Your task to perform on an android device: turn pop-ups on in chrome Image 0: 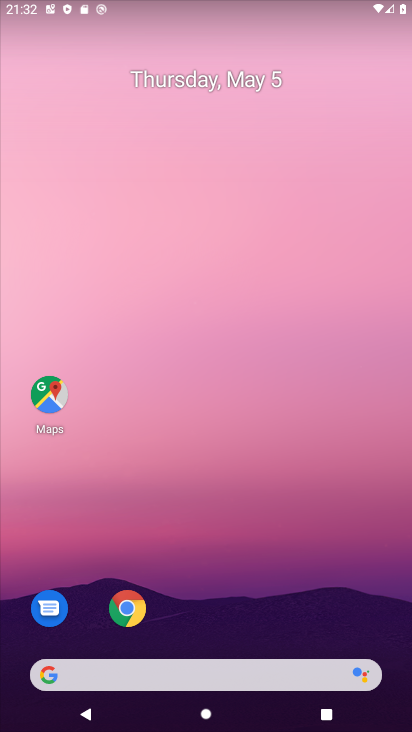
Step 0: drag from (217, 610) to (232, 8)
Your task to perform on an android device: turn pop-ups on in chrome Image 1: 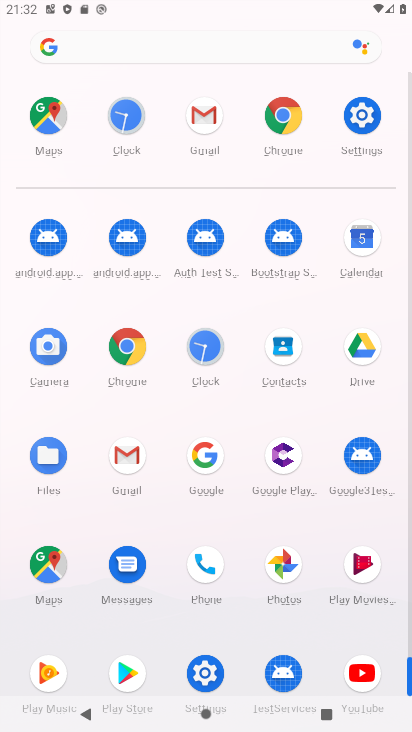
Step 1: click (137, 335)
Your task to perform on an android device: turn pop-ups on in chrome Image 2: 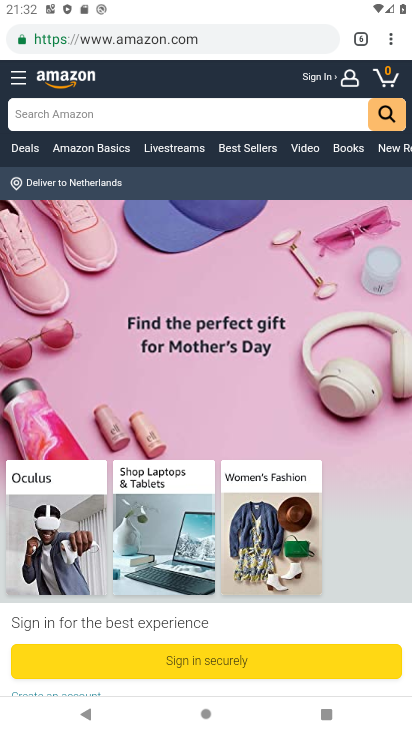
Step 2: drag from (392, 37) to (268, 472)
Your task to perform on an android device: turn pop-ups on in chrome Image 3: 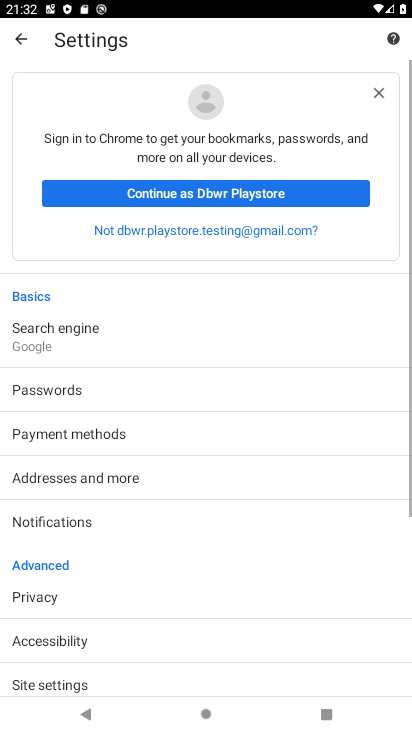
Step 3: drag from (233, 661) to (216, 190)
Your task to perform on an android device: turn pop-ups on in chrome Image 4: 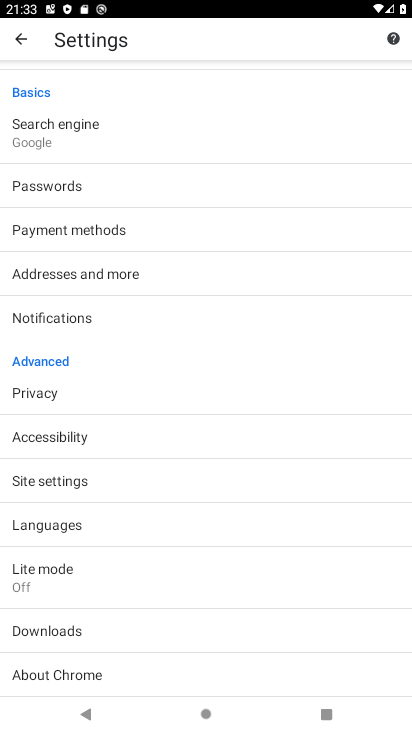
Step 4: click (104, 486)
Your task to perform on an android device: turn pop-ups on in chrome Image 5: 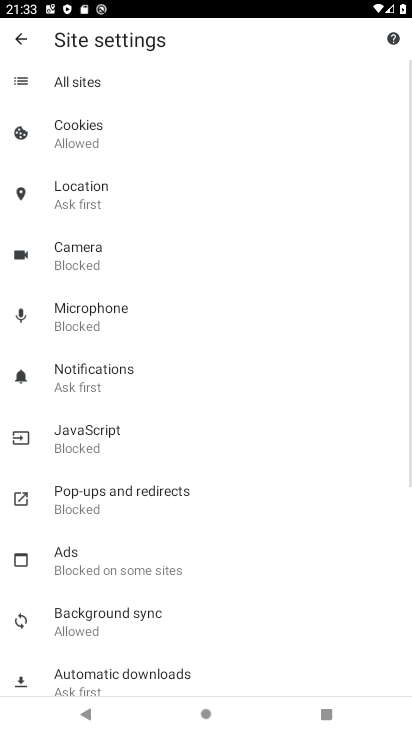
Step 5: click (131, 496)
Your task to perform on an android device: turn pop-ups on in chrome Image 6: 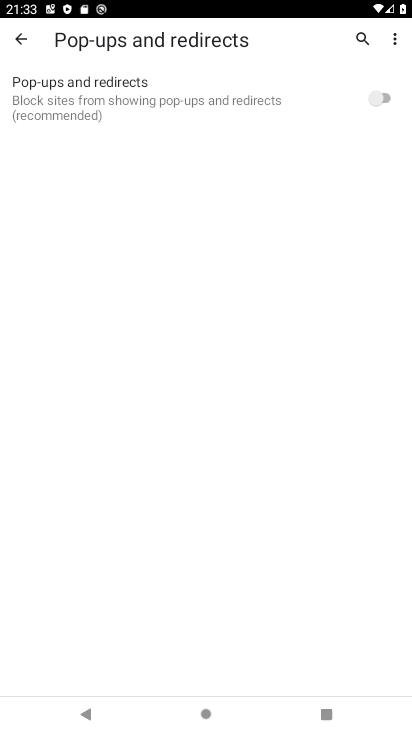
Step 6: click (382, 98)
Your task to perform on an android device: turn pop-ups on in chrome Image 7: 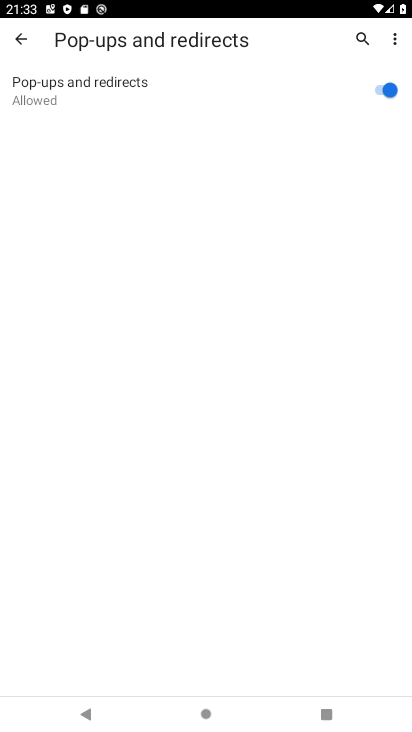
Step 7: task complete